Your task to perform on an android device: Show me productivity apps on the Play Store Image 0: 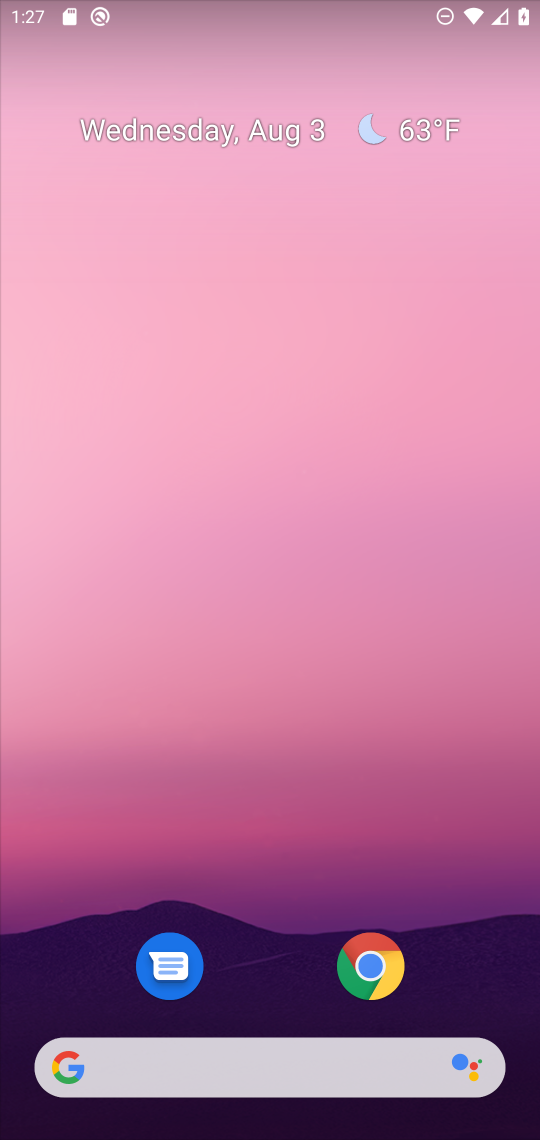
Step 0: drag from (273, 973) to (265, 123)
Your task to perform on an android device: Show me productivity apps on the Play Store Image 1: 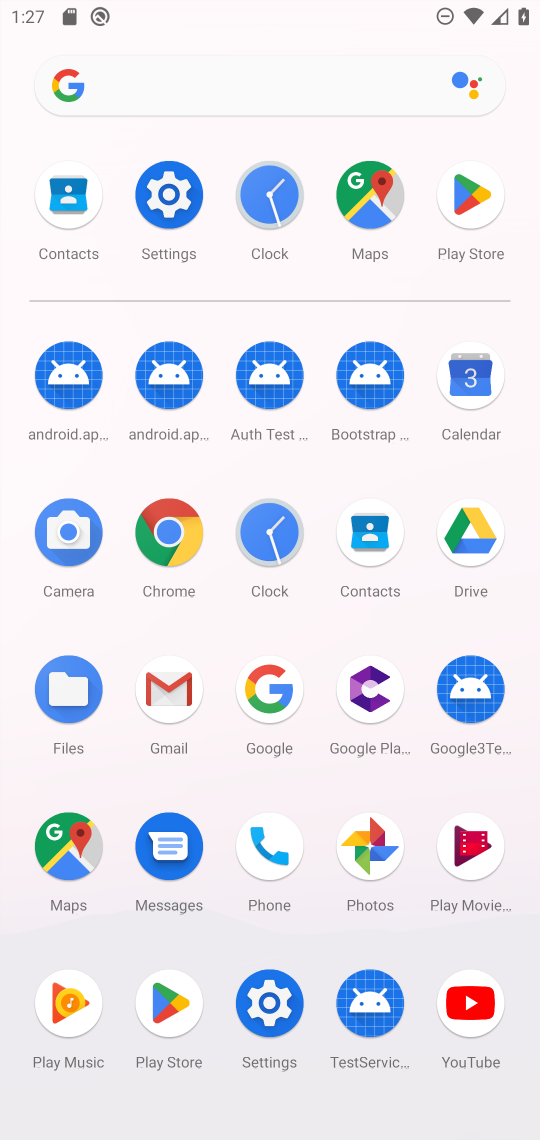
Step 1: click (454, 206)
Your task to perform on an android device: Show me productivity apps on the Play Store Image 2: 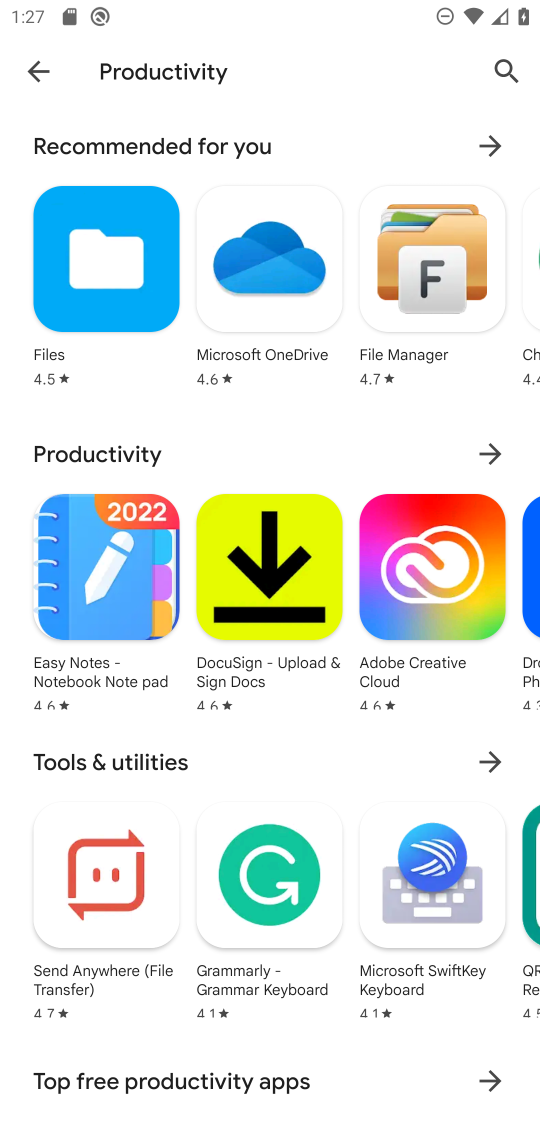
Step 2: task complete